Your task to perform on an android device: empty trash in google photos Image 0: 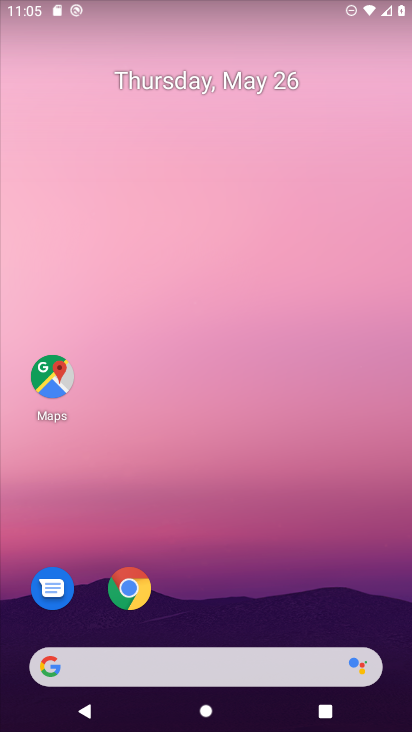
Step 0: drag from (380, 611) to (318, 51)
Your task to perform on an android device: empty trash in google photos Image 1: 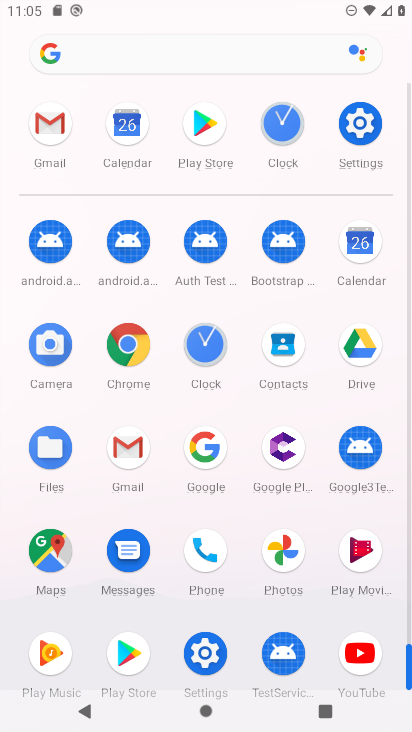
Step 1: drag from (409, 626) to (401, 575)
Your task to perform on an android device: empty trash in google photos Image 2: 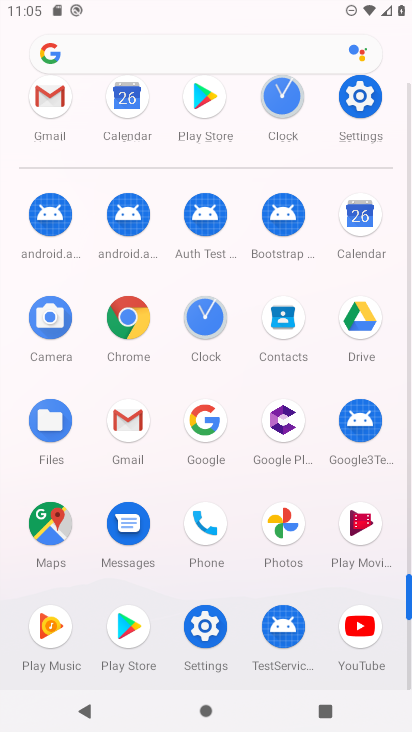
Step 2: click (282, 518)
Your task to perform on an android device: empty trash in google photos Image 3: 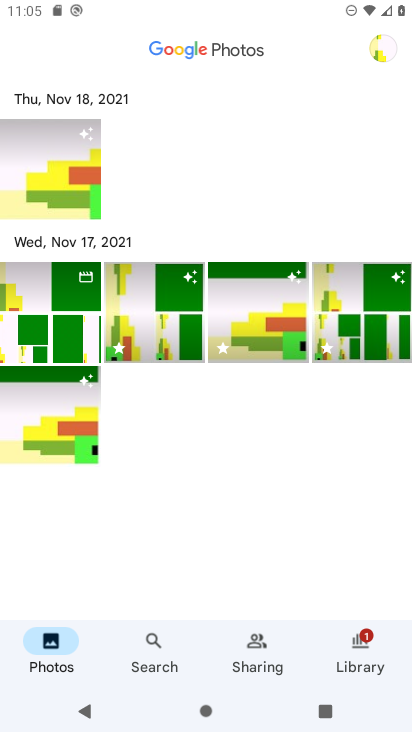
Step 3: click (356, 645)
Your task to perform on an android device: empty trash in google photos Image 4: 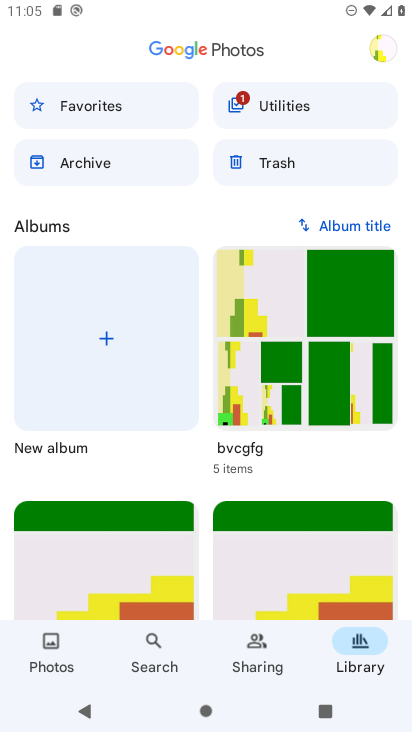
Step 4: click (264, 153)
Your task to perform on an android device: empty trash in google photos Image 5: 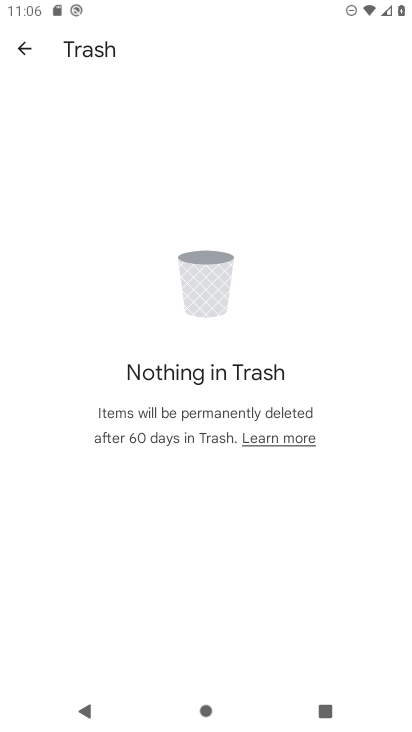
Step 5: task complete